Your task to perform on an android device: Open the phone app and click the voicemail tab. Image 0: 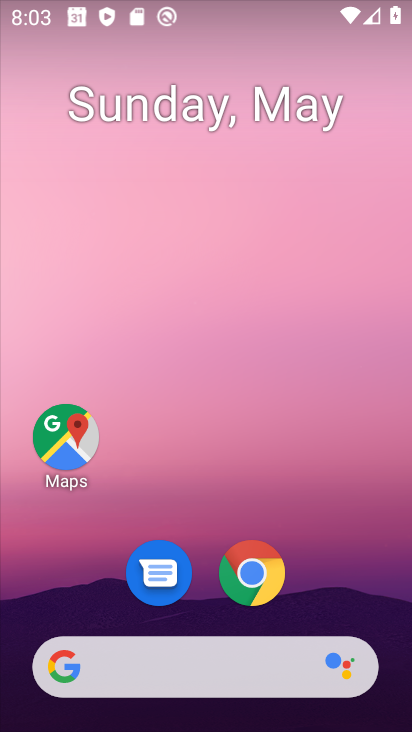
Step 0: drag from (348, 603) to (253, 154)
Your task to perform on an android device: Open the phone app and click the voicemail tab. Image 1: 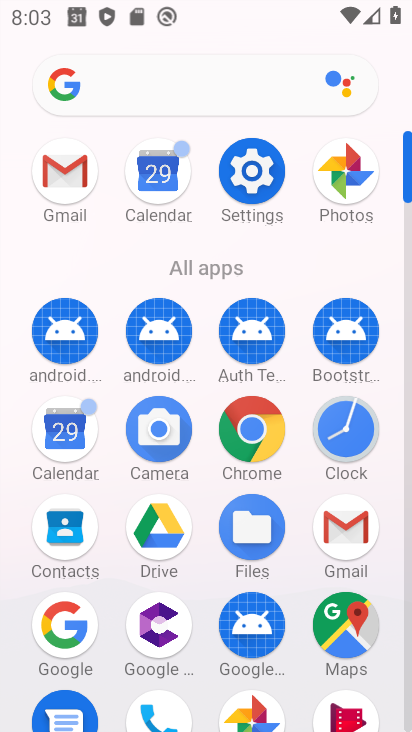
Step 1: click (407, 709)
Your task to perform on an android device: Open the phone app and click the voicemail tab. Image 2: 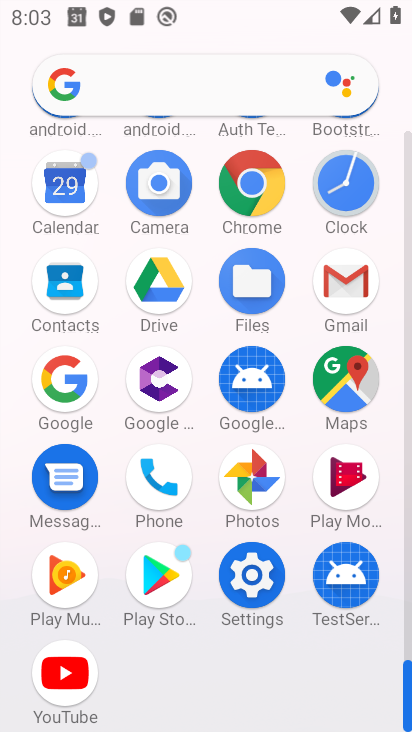
Step 2: click (154, 465)
Your task to perform on an android device: Open the phone app and click the voicemail tab. Image 3: 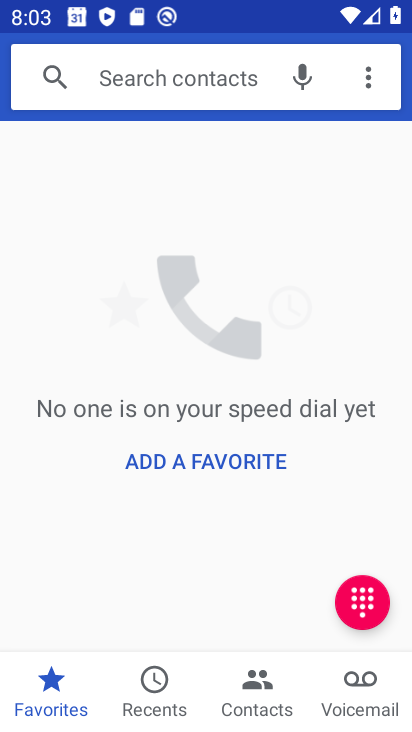
Step 3: click (370, 679)
Your task to perform on an android device: Open the phone app and click the voicemail tab. Image 4: 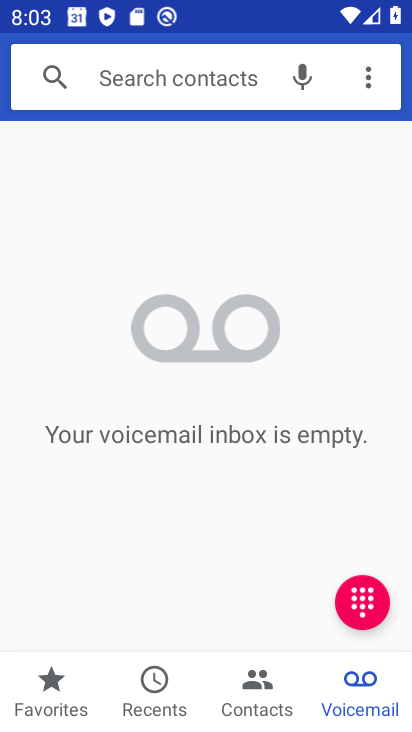
Step 4: task complete